Your task to perform on an android device: Open Wikipedia Image 0: 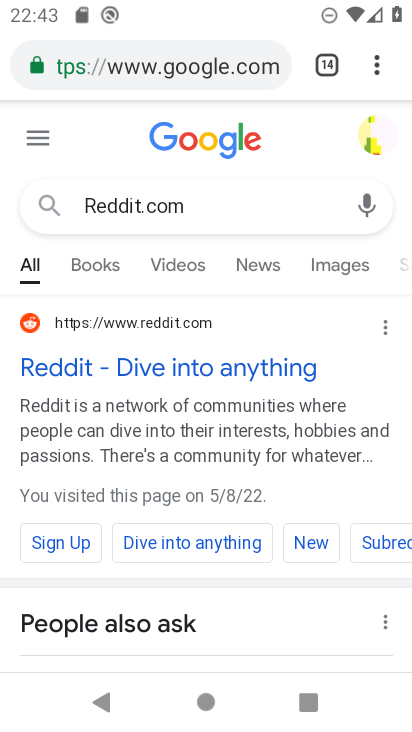
Step 0: press home button
Your task to perform on an android device: Open Wikipedia Image 1: 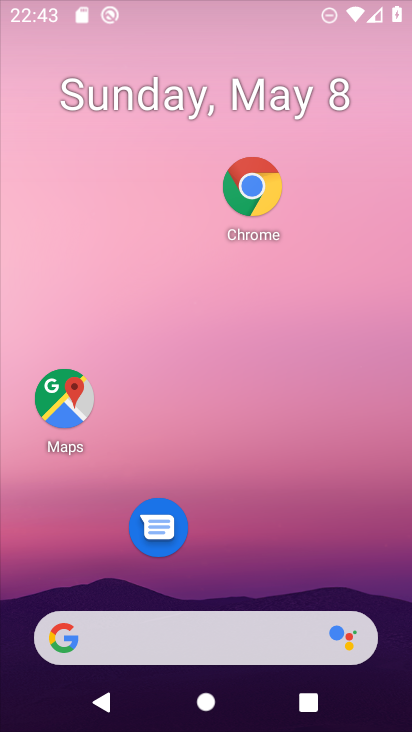
Step 1: drag from (248, 459) to (268, 296)
Your task to perform on an android device: Open Wikipedia Image 2: 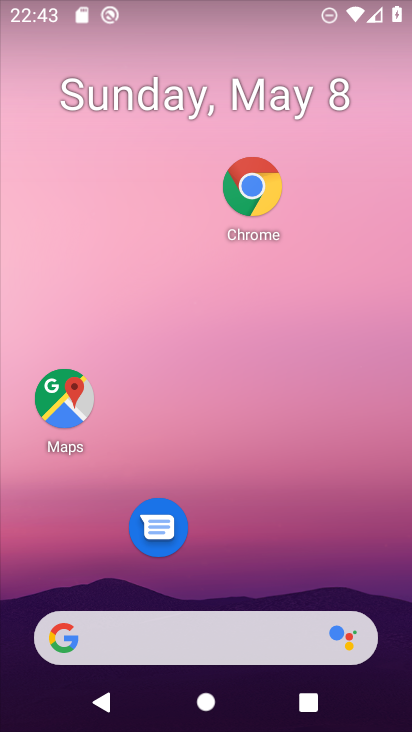
Step 2: drag from (261, 566) to (296, 321)
Your task to perform on an android device: Open Wikipedia Image 3: 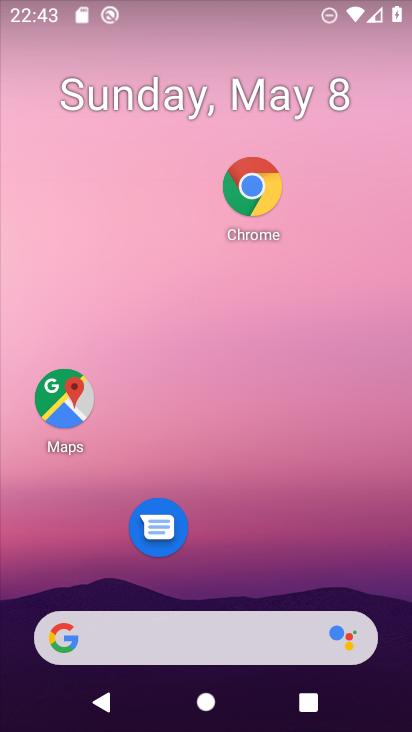
Step 3: drag from (283, 569) to (322, 284)
Your task to perform on an android device: Open Wikipedia Image 4: 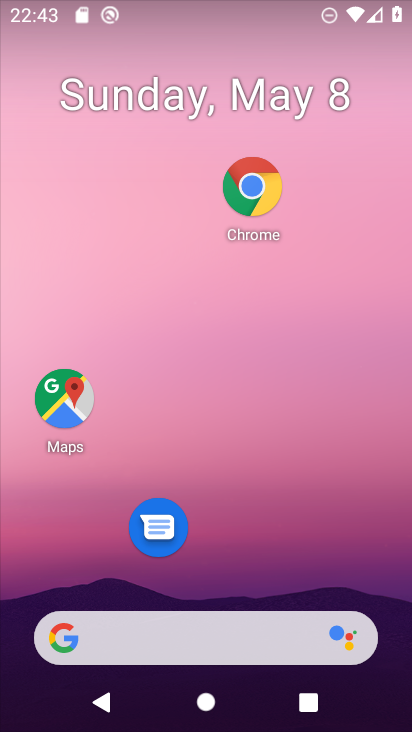
Step 4: drag from (228, 560) to (390, 98)
Your task to perform on an android device: Open Wikipedia Image 5: 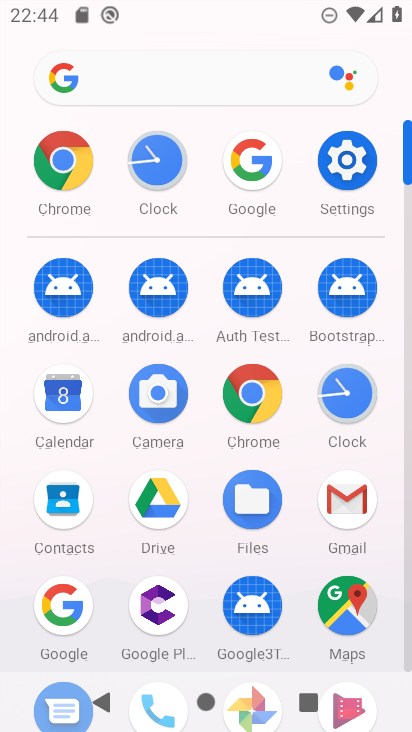
Step 5: click (243, 388)
Your task to perform on an android device: Open Wikipedia Image 6: 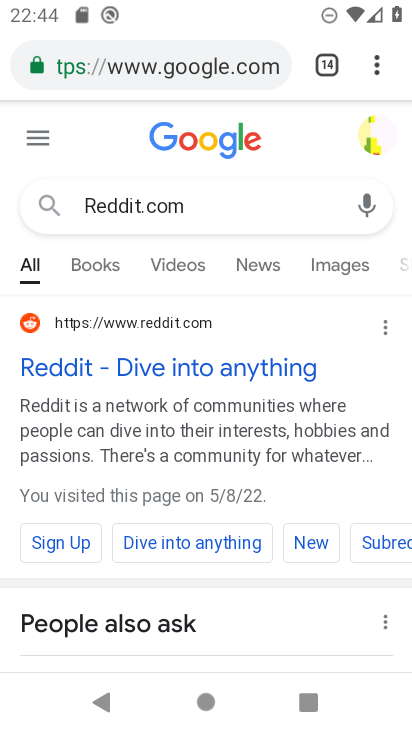
Step 6: click (363, 55)
Your task to perform on an android device: Open Wikipedia Image 7: 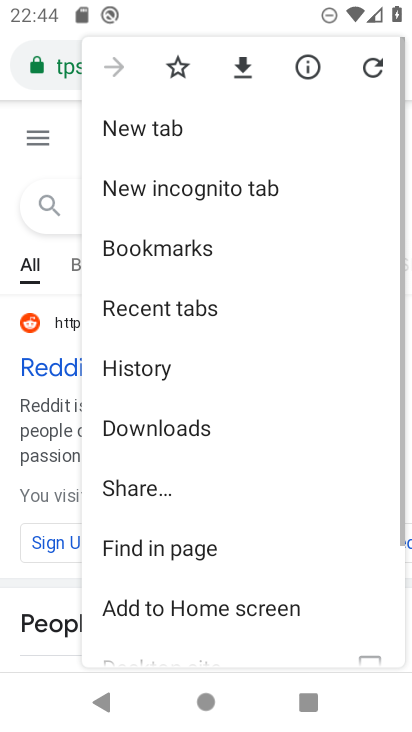
Step 7: click (163, 121)
Your task to perform on an android device: Open Wikipedia Image 8: 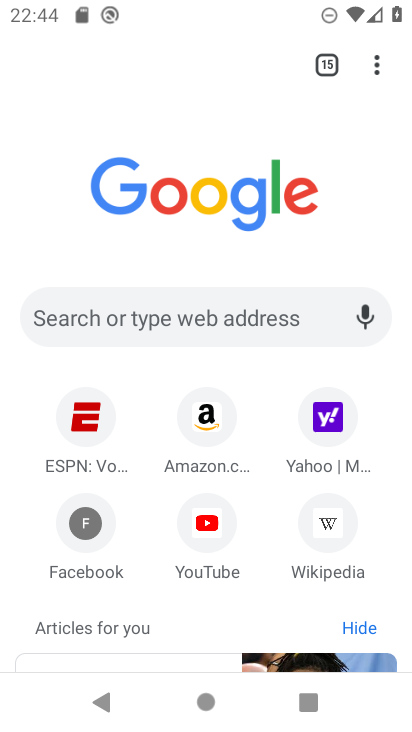
Step 8: click (321, 521)
Your task to perform on an android device: Open Wikipedia Image 9: 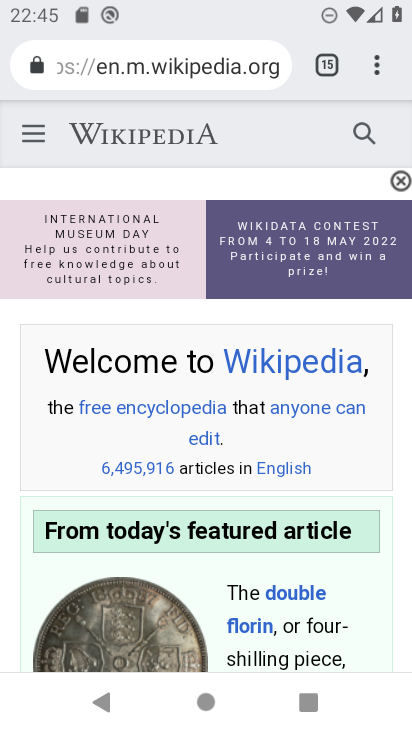
Step 9: task complete